Your task to perform on an android device: check storage Image 0: 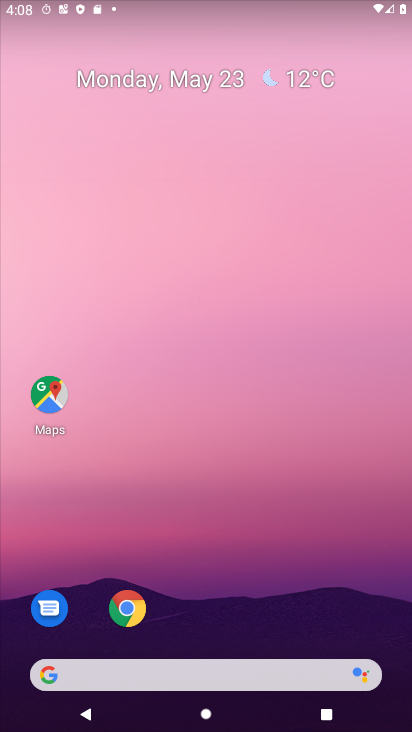
Step 0: drag from (245, 229) to (170, 6)
Your task to perform on an android device: check storage Image 1: 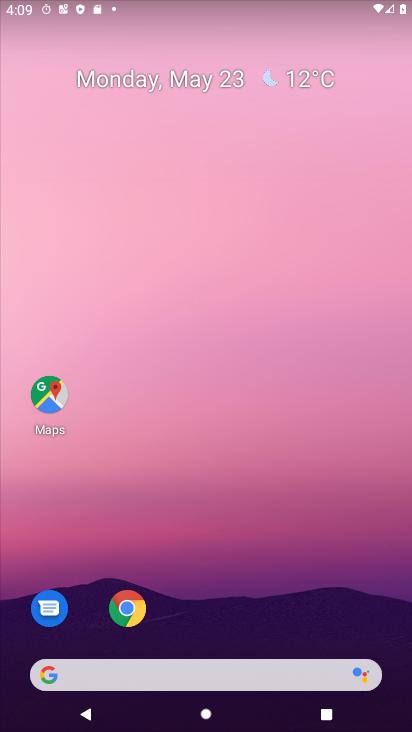
Step 1: drag from (291, 576) to (187, 0)
Your task to perform on an android device: check storage Image 2: 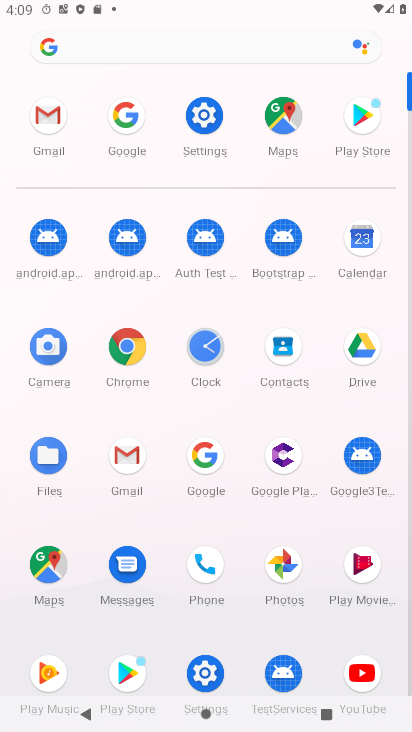
Step 2: click (215, 131)
Your task to perform on an android device: check storage Image 3: 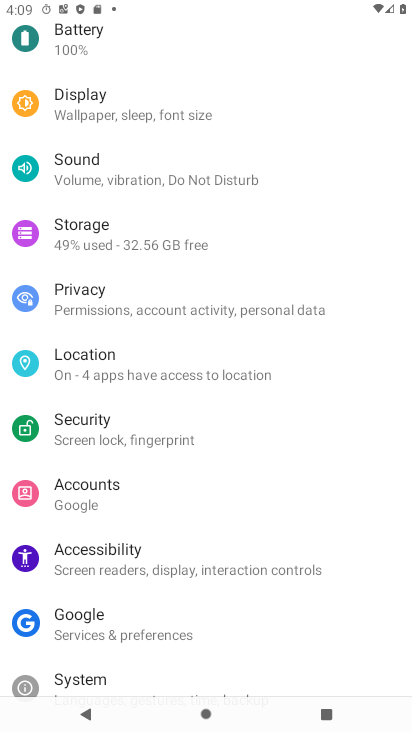
Step 3: click (137, 231)
Your task to perform on an android device: check storage Image 4: 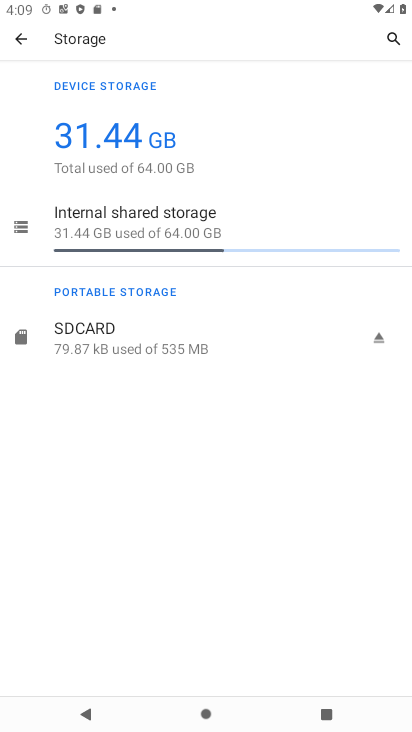
Step 4: task complete